Your task to perform on an android device: Open Google Chrome and click the shortcut for Amazon.com Image 0: 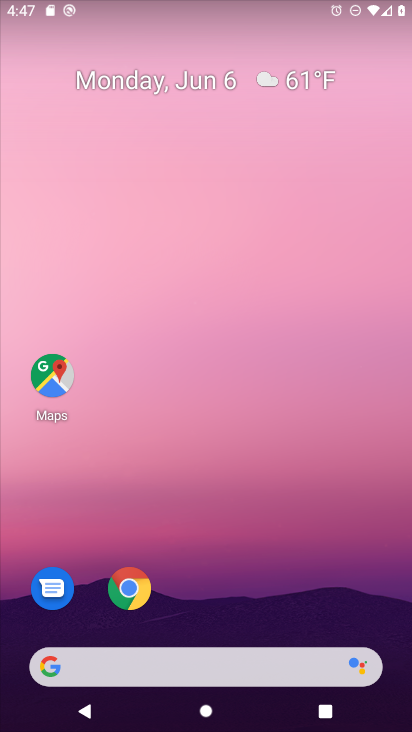
Step 0: drag from (215, 616) to (228, 138)
Your task to perform on an android device: Open Google Chrome and click the shortcut for Amazon.com Image 1: 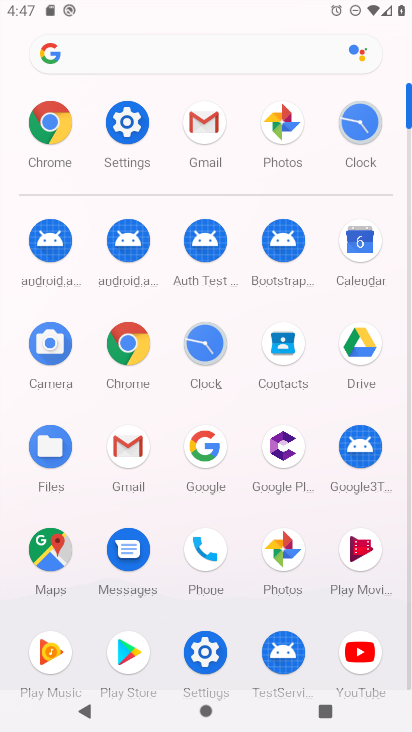
Step 1: click (62, 118)
Your task to perform on an android device: Open Google Chrome and click the shortcut for Amazon.com Image 2: 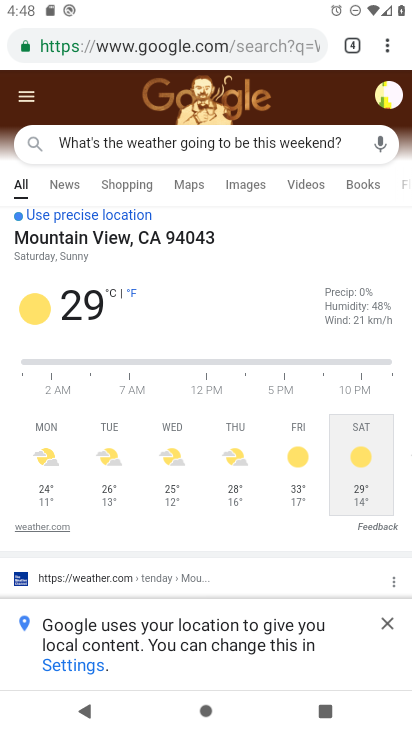
Step 2: click (349, 45)
Your task to perform on an android device: Open Google Chrome and click the shortcut for Amazon.com Image 3: 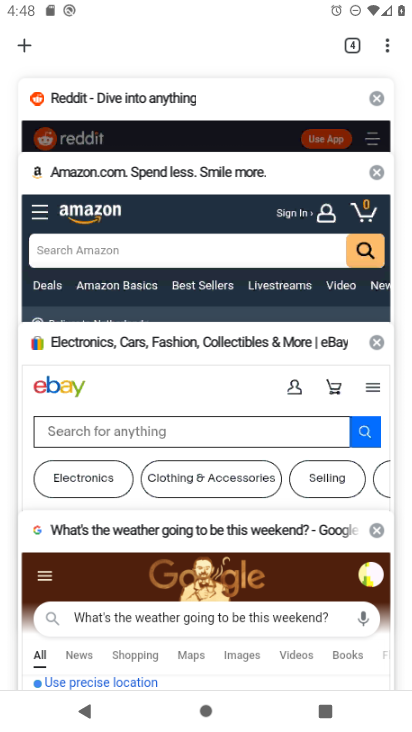
Step 3: click (243, 180)
Your task to perform on an android device: Open Google Chrome and click the shortcut for Amazon.com Image 4: 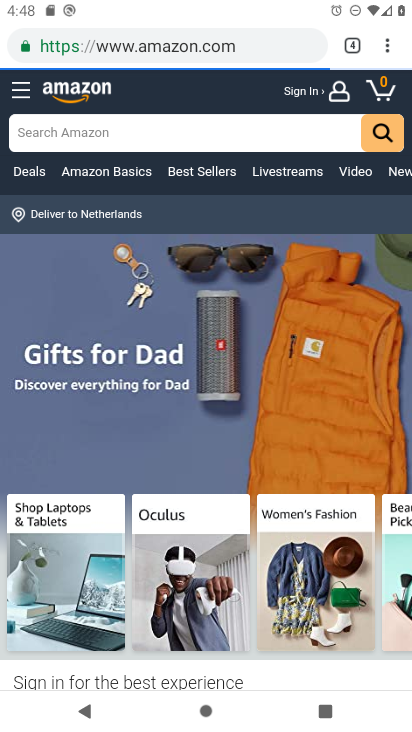
Step 4: task complete